Your task to perform on an android device: Show me the alarms in the clock app Image 0: 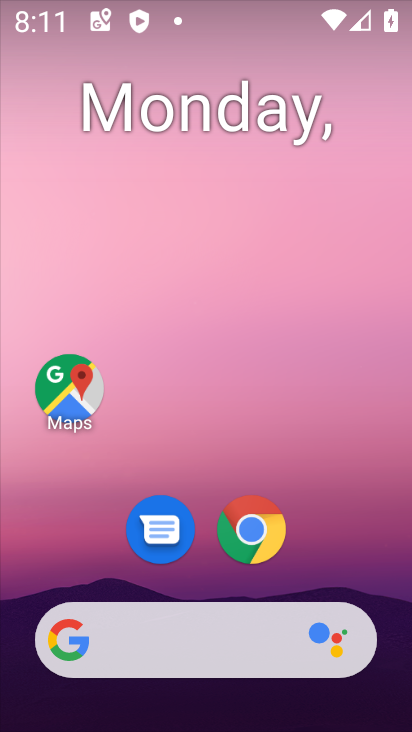
Step 0: drag from (397, 603) to (310, 720)
Your task to perform on an android device: Show me the alarms in the clock app Image 1: 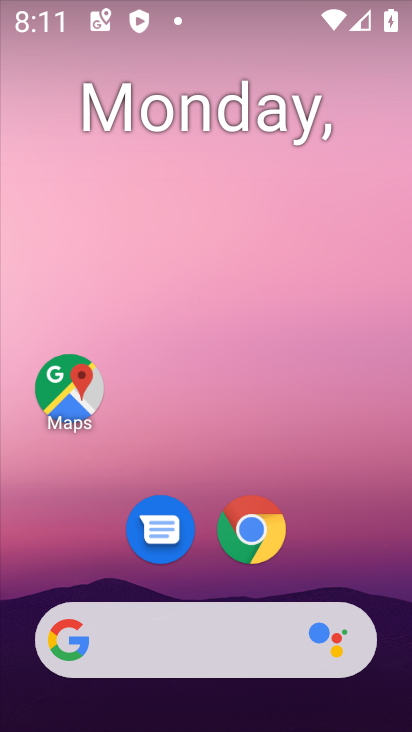
Step 1: drag from (198, 615) to (172, 160)
Your task to perform on an android device: Show me the alarms in the clock app Image 2: 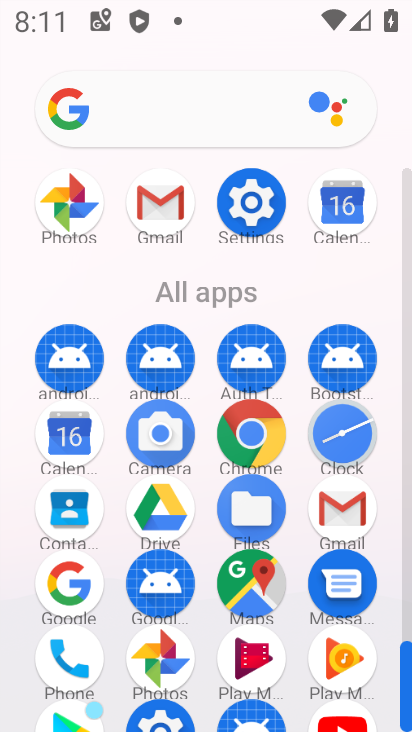
Step 2: click (326, 413)
Your task to perform on an android device: Show me the alarms in the clock app Image 3: 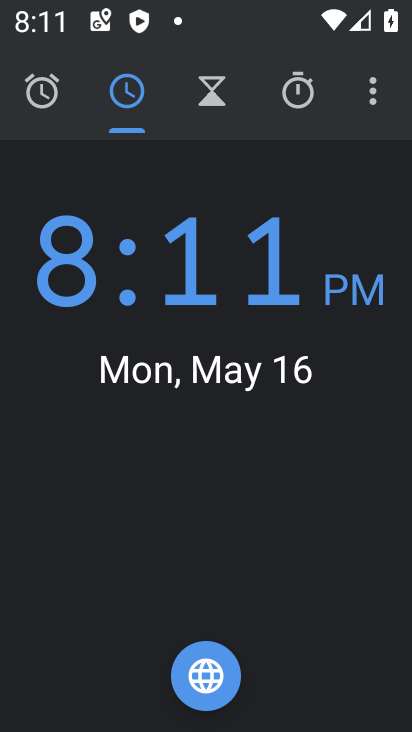
Step 3: click (50, 91)
Your task to perform on an android device: Show me the alarms in the clock app Image 4: 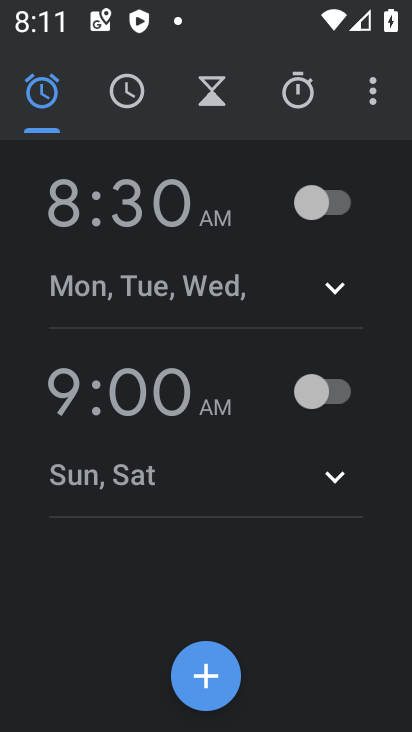
Step 4: task complete